Your task to perform on an android device: Open settings on Google Maps Image 0: 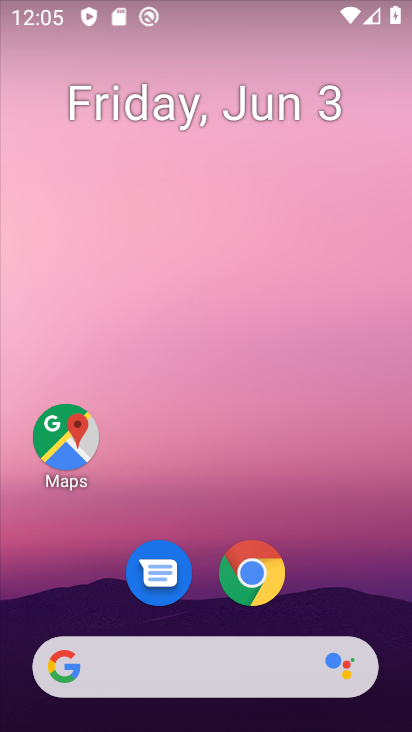
Step 0: task complete